Your task to perform on an android device: Open Google Chrome Image 0: 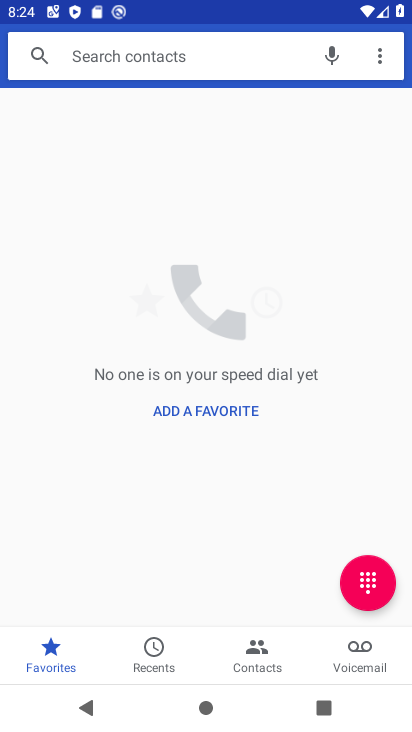
Step 0: press home button
Your task to perform on an android device: Open Google Chrome Image 1: 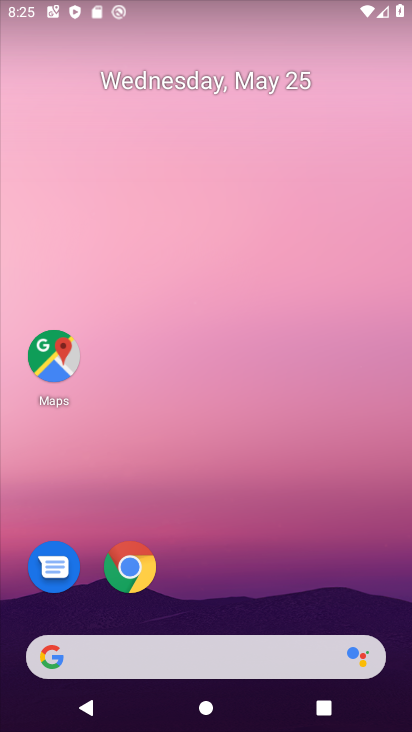
Step 1: click (137, 566)
Your task to perform on an android device: Open Google Chrome Image 2: 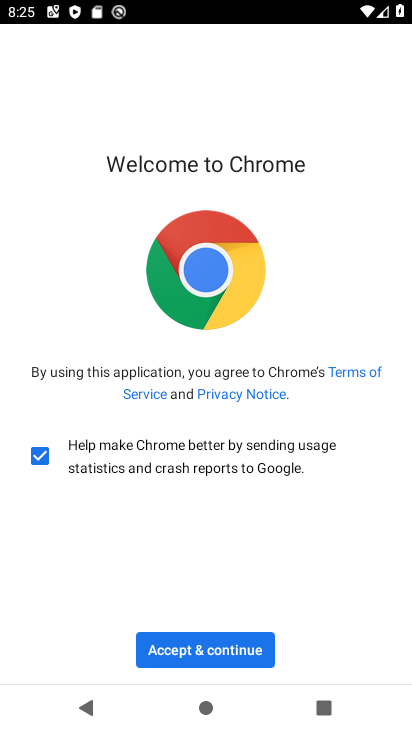
Step 2: click (228, 639)
Your task to perform on an android device: Open Google Chrome Image 3: 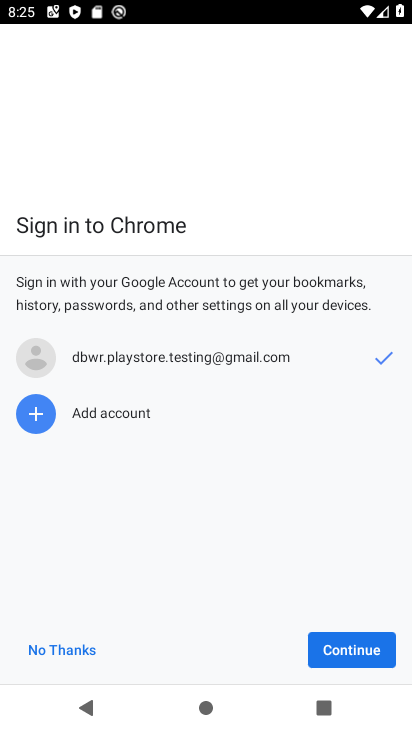
Step 3: click (345, 643)
Your task to perform on an android device: Open Google Chrome Image 4: 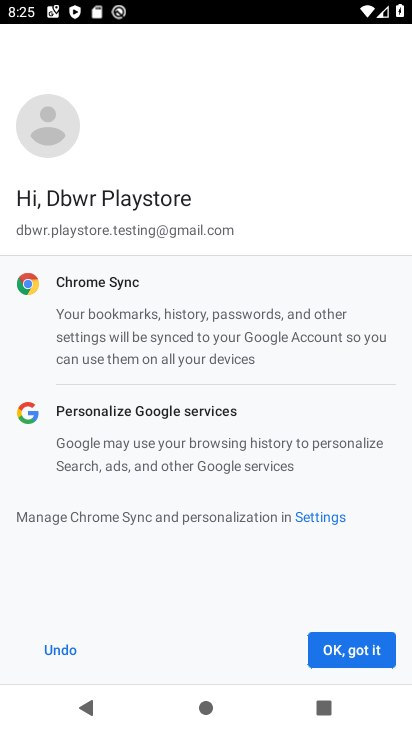
Step 4: click (345, 641)
Your task to perform on an android device: Open Google Chrome Image 5: 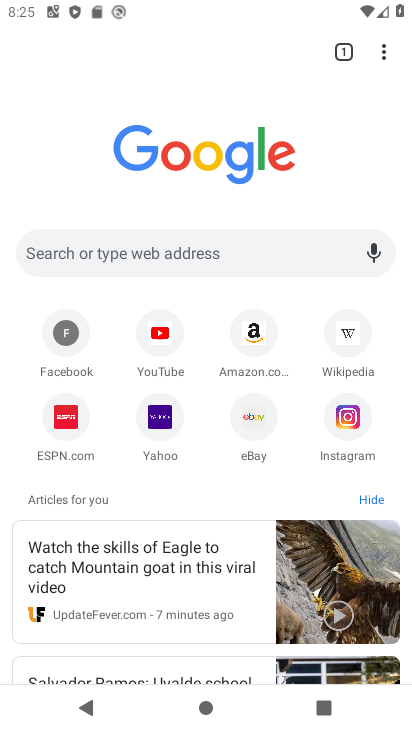
Step 5: task complete